Your task to perform on an android device: change notification settings in the gmail app Image 0: 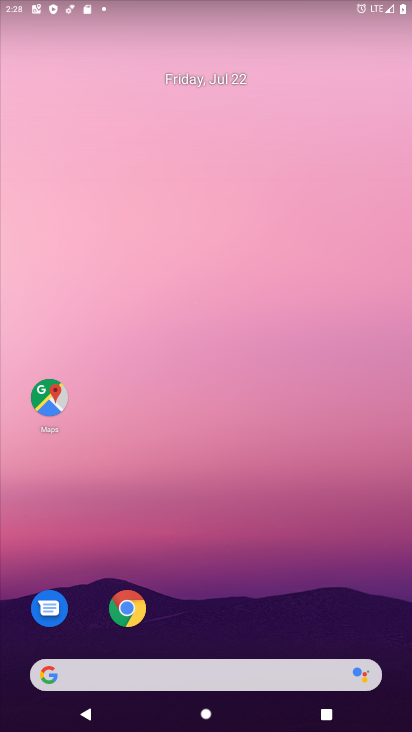
Step 0: drag from (405, 719) to (326, 110)
Your task to perform on an android device: change notification settings in the gmail app Image 1: 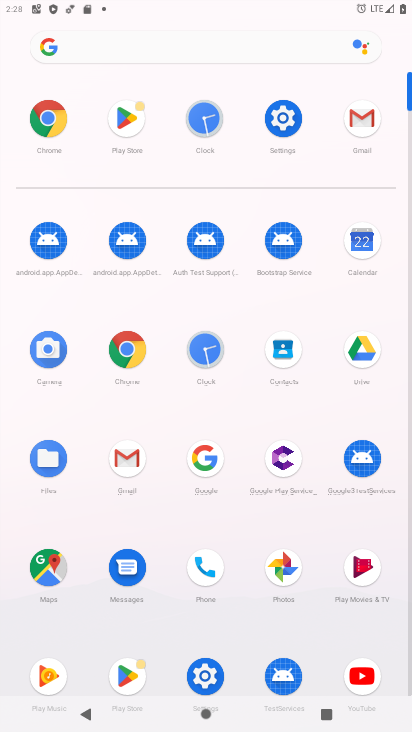
Step 1: click (129, 468)
Your task to perform on an android device: change notification settings in the gmail app Image 2: 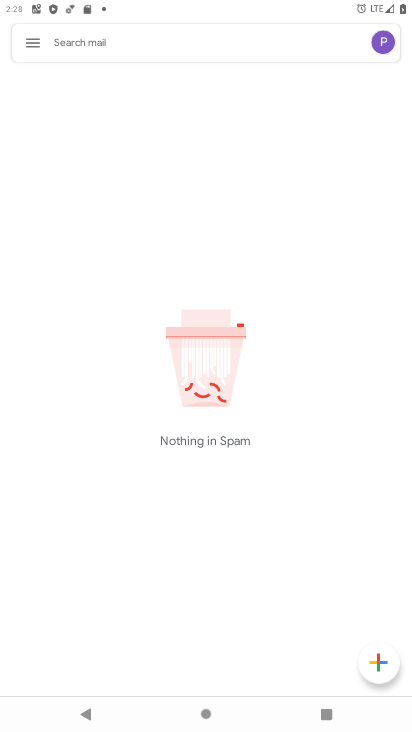
Step 2: task complete